Your task to perform on an android device: install app "Google Play Music" Image 0: 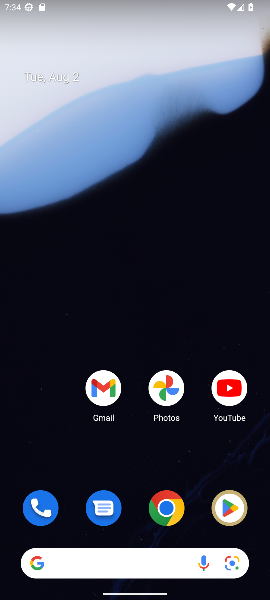
Step 0: drag from (57, 487) to (80, 10)
Your task to perform on an android device: install app "Google Play Music" Image 1: 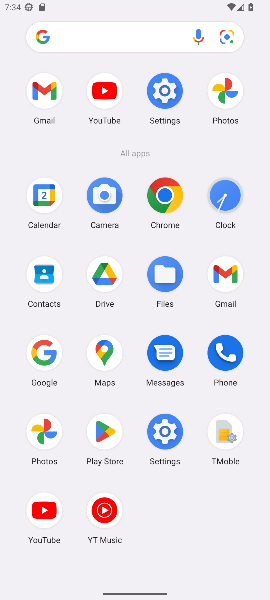
Step 1: click (109, 442)
Your task to perform on an android device: install app "Google Play Music" Image 2: 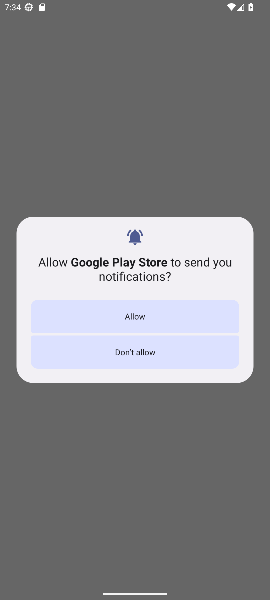
Step 2: click (150, 310)
Your task to perform on an android device: install app "Google Play Music" Image 3: 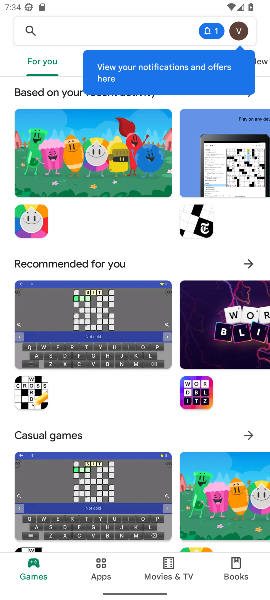
Step 3: click (104, 24)
Your task to perform on an android device: install app "Google Play Music" Image 4: 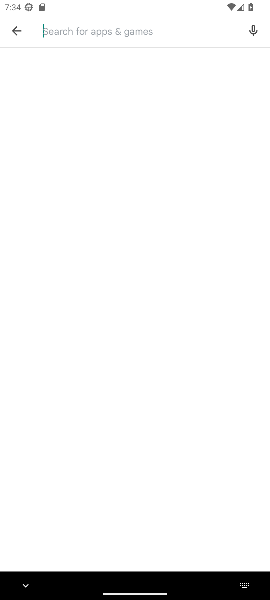
Step 4: type "google play music"
Your task to perform on an android device: install app "Google Play Music" Image 5: 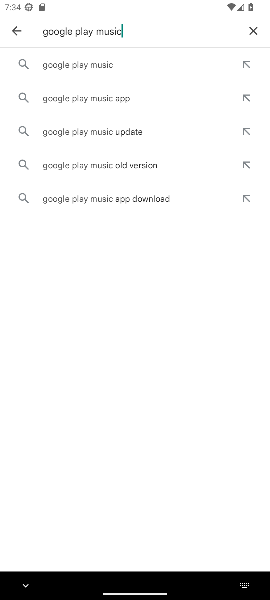
Step 5: click (109, 70)
Your task to perform on an android device: install app "Google Play Music" Image 6: 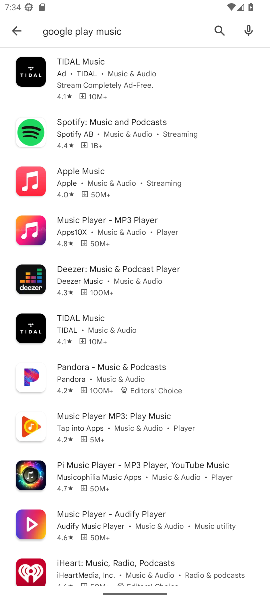
Step 6: task complete